Your task to perform on an android device: Open eBay Image 0: 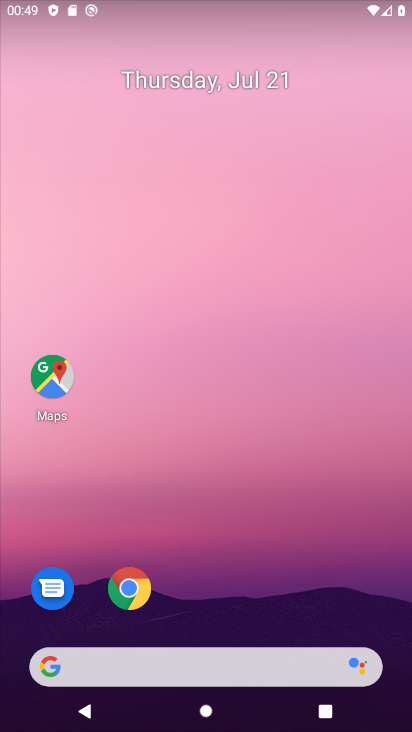
Step 0: click (131, 577)
Your task to perform on an android device: Open eBay Image 1: 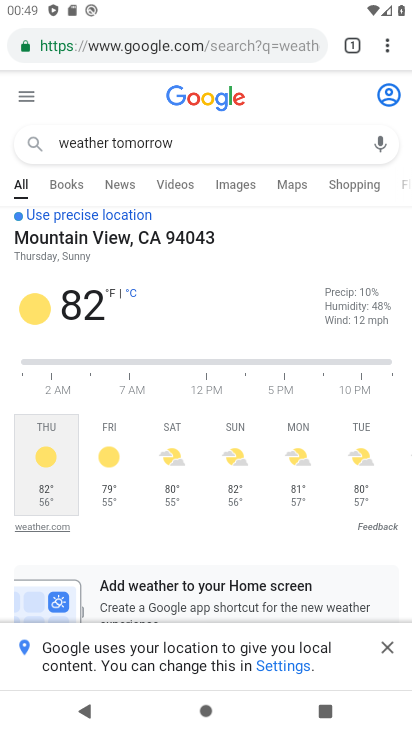
Step 1: click (213, 42)
Your task to perform on an android device: Open eBay Image 2: 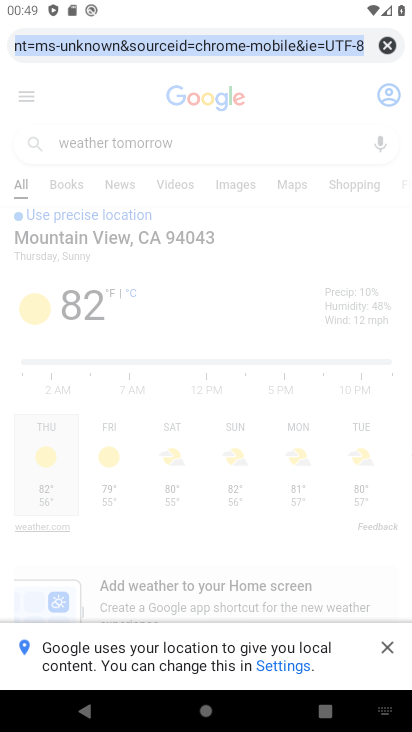
Step 2: click (387, 45)
Your task to perform on an android device: Open eBay Image 3: 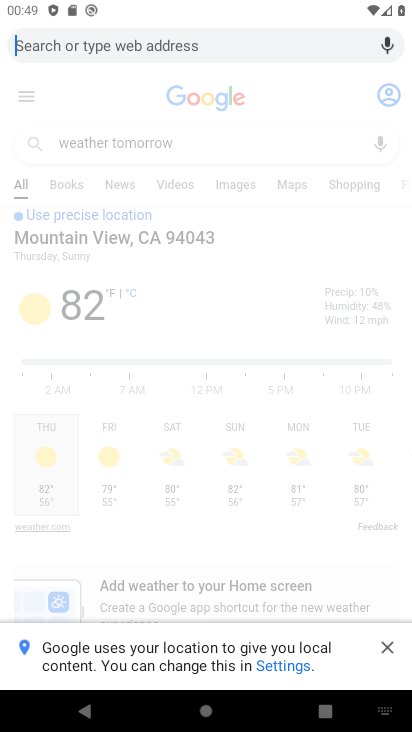
Step 3: type "ebay.com"
Your task to perform on an android device: Open eBay Image 4: 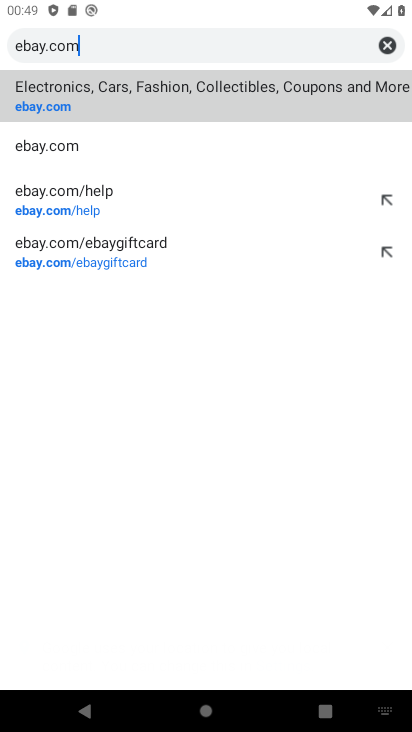
Step 4: click (241, 83)
Your task to perform on an android device: Open eBay Image 5: 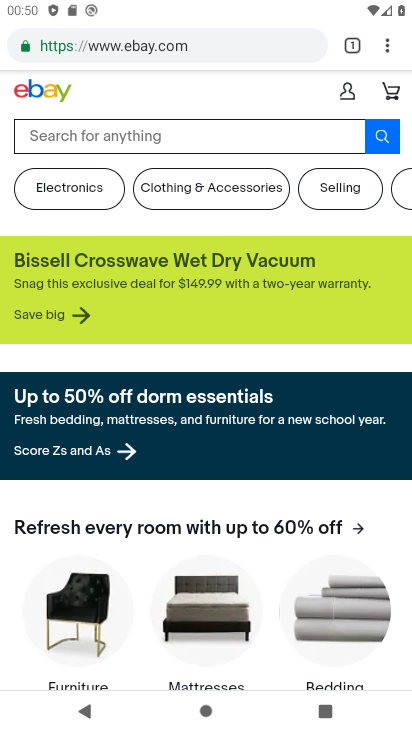
Step 5: task complete